Your task to perform on an android device: Go to battery settings Image 0: 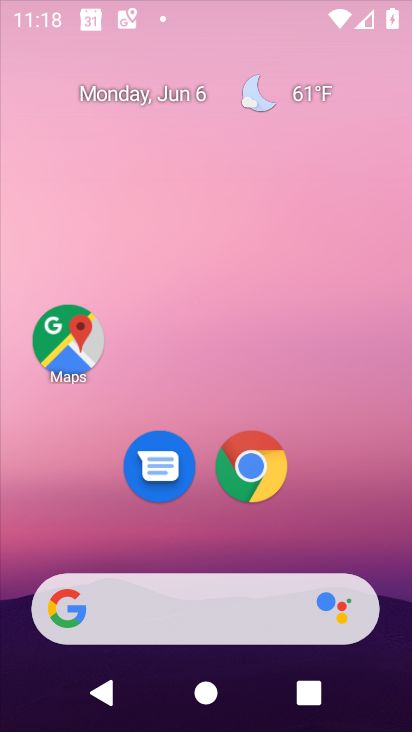
Step 0: press home button
Your task to perform on an android device: Go to battery settings Image 1: 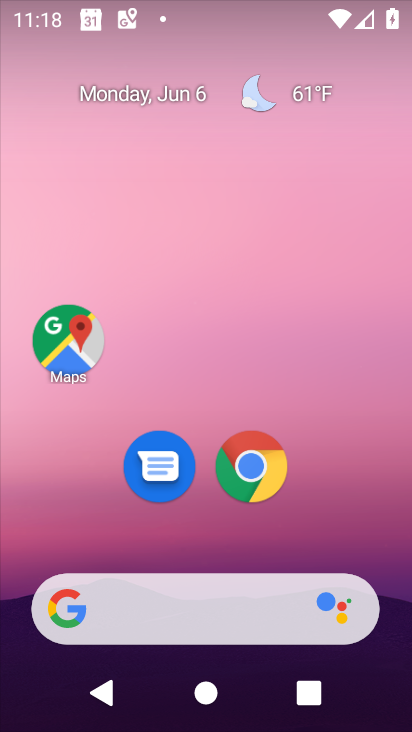
Step 1: drag from (369, 580) to (314, 53)
Your task to perform on an android device: Go to battery settings Image 2: 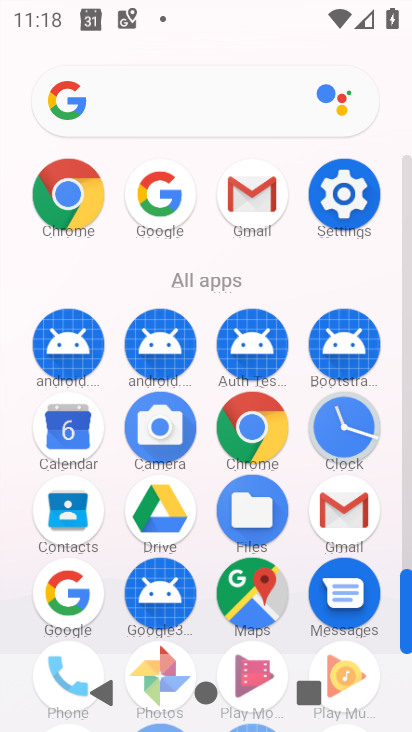
Step 2: click (318, 193)
Your task to perform on an android device: Go to battery settings Image 3: 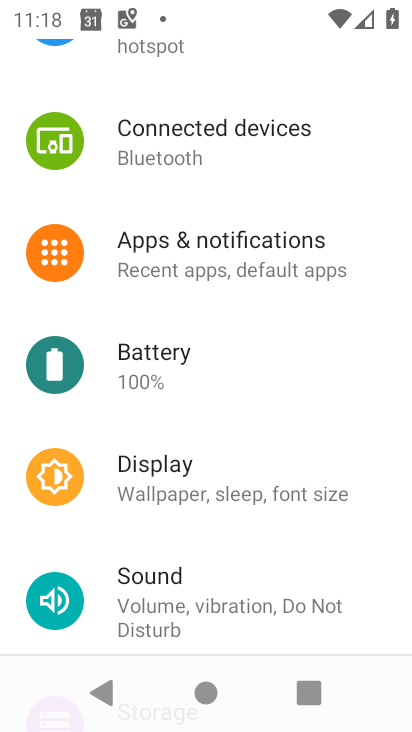
Step 3: click (140, 365)
Your task to perform on an android device: Go to battery settings Image 4: 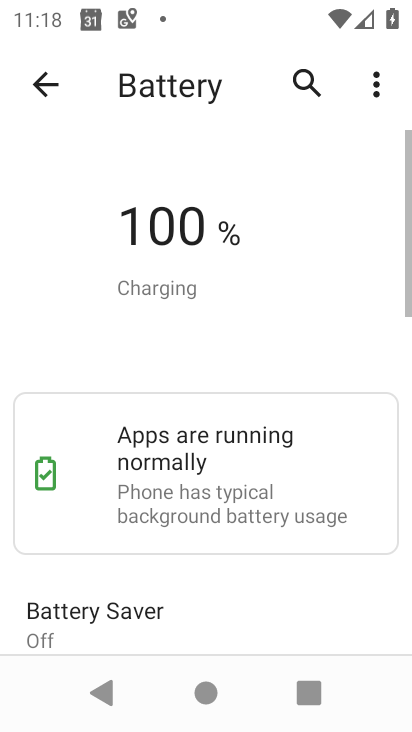
Step 4: task complete